Your task to perform on an android device: Toggle the flashlight Image 0: 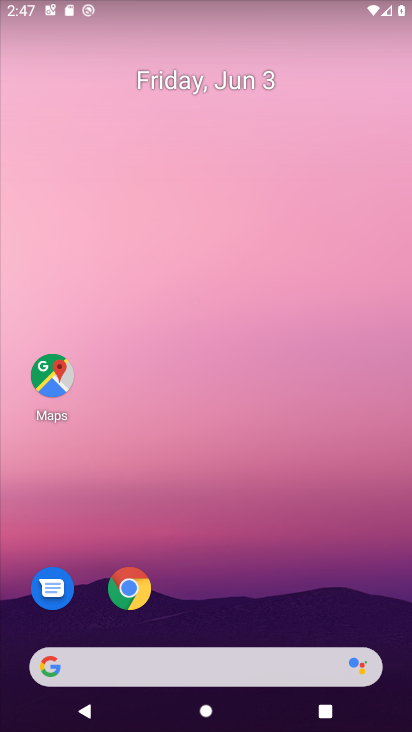
Step 0: drag from (249, 621) to (253, 8)
Your task to perform on an android device: Toggle the flashlight Image 1: 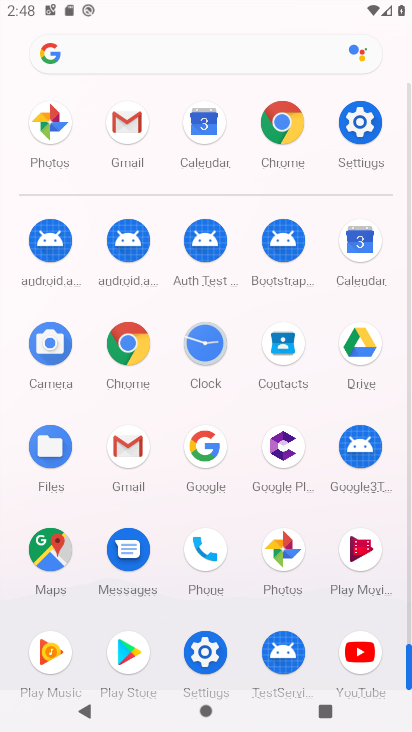
Step 1: task complete